Your task to perform on an android device: Go to notification settings Image 0: 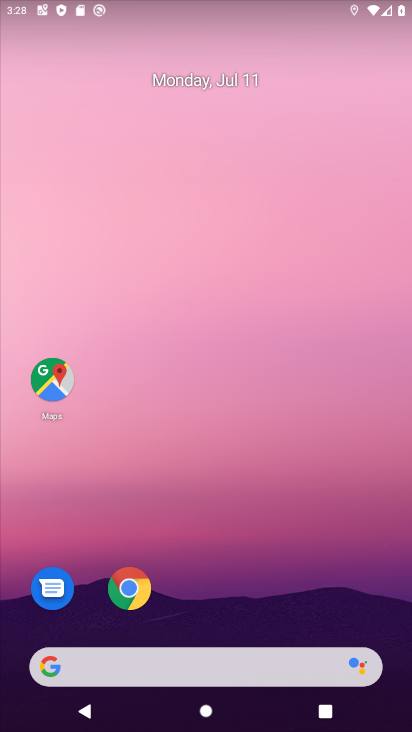
Step 0: drag from (214, 661) to (253, 380)
Your task to perform on an android device: Go to notification settings Image 1: 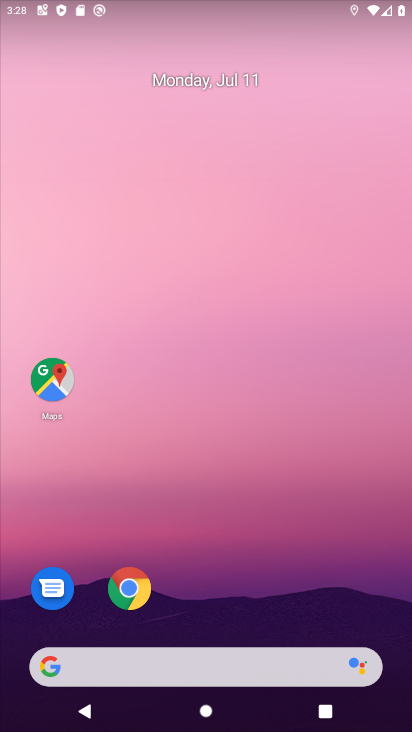
Step 1: drag from (245, 646) to (248, 446)
Your task to perform on an android device: Go to notification settings Image 2: 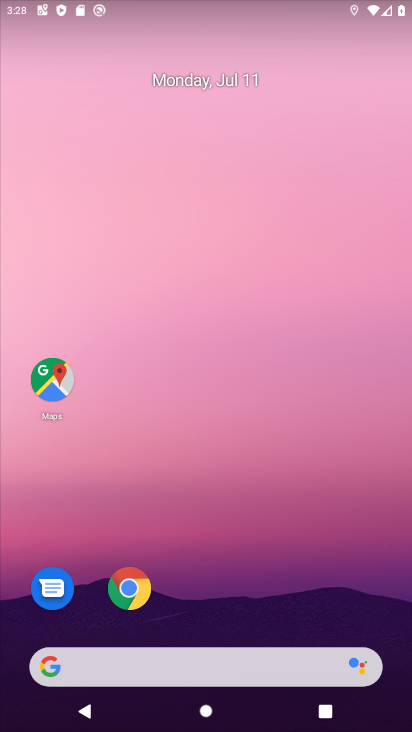
Step 2: drag from (217, 624) to (236, 270)
Your task to perform on an android device: Go to notification settings Image 3: 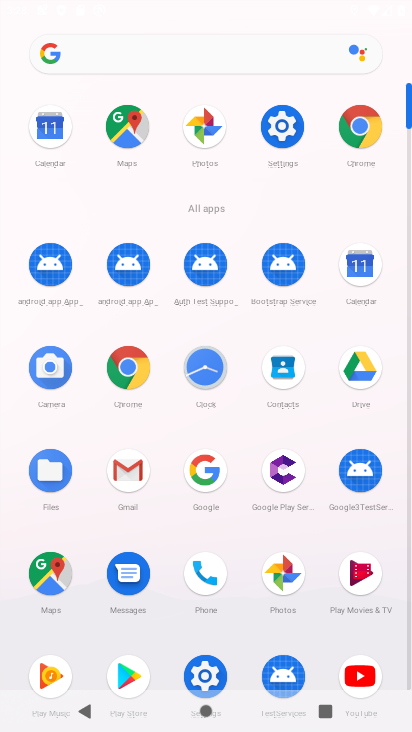
Step 3: click (283, 130)
Your task to perform on an android device: Go to notification settings Image 4: 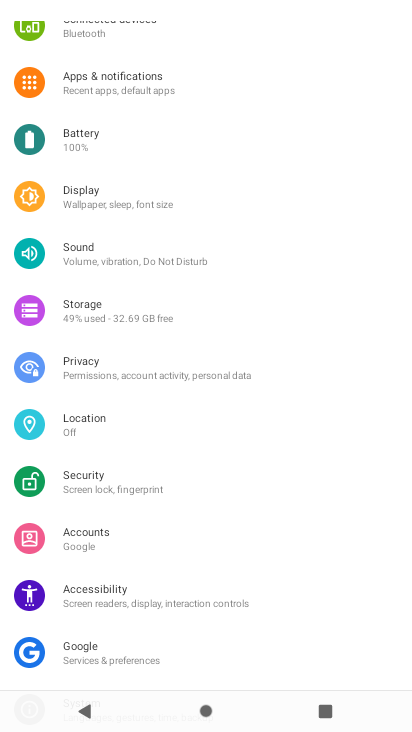
Step 4: click (136, 81)
Your task to perform on an android device: Go to notification settings Image 5: 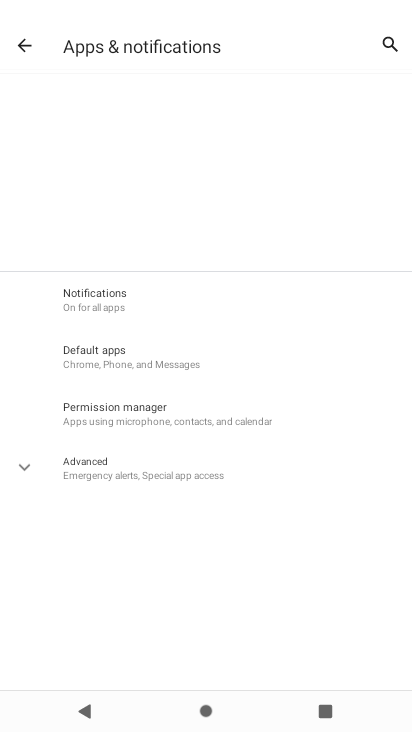
Step 5: click (66, 462)
Your task to perform on an android device: Go to notification settings Image 6: 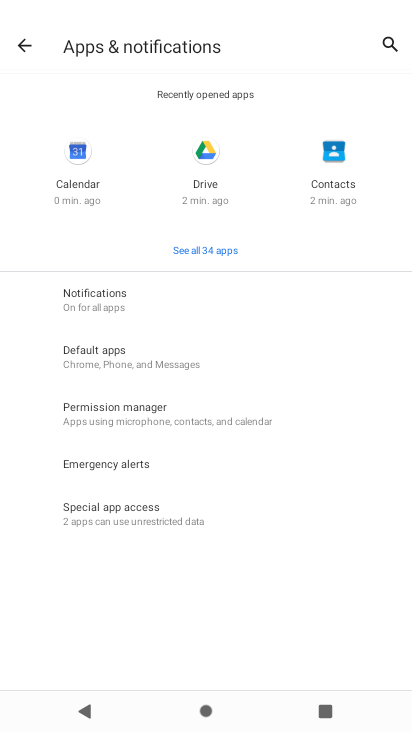
Step 6: task complete